Your task to perform on an android device: What's the news in Vietnam? Image 0: 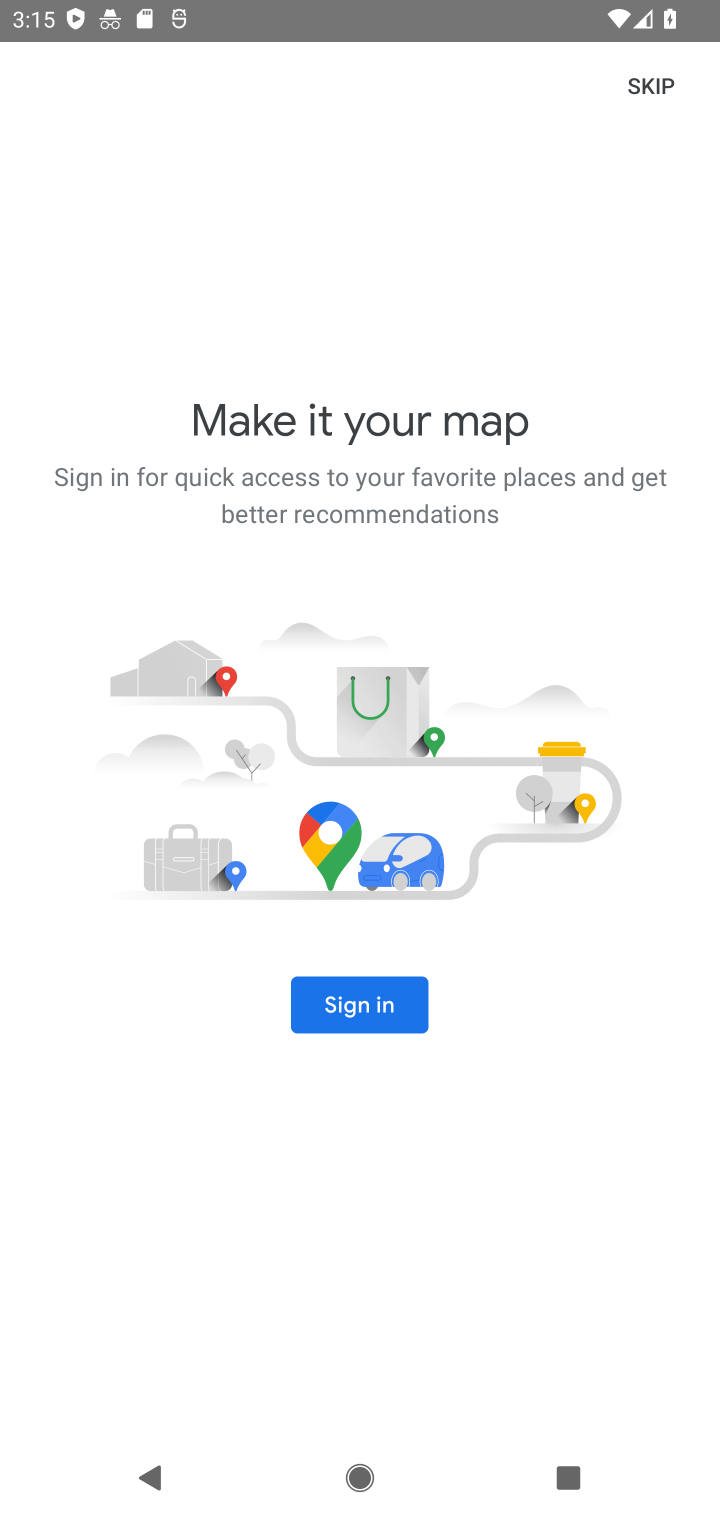
Step 0: press home button
Your task to perform on an android device: What's the news in Vietnam? Image 1: 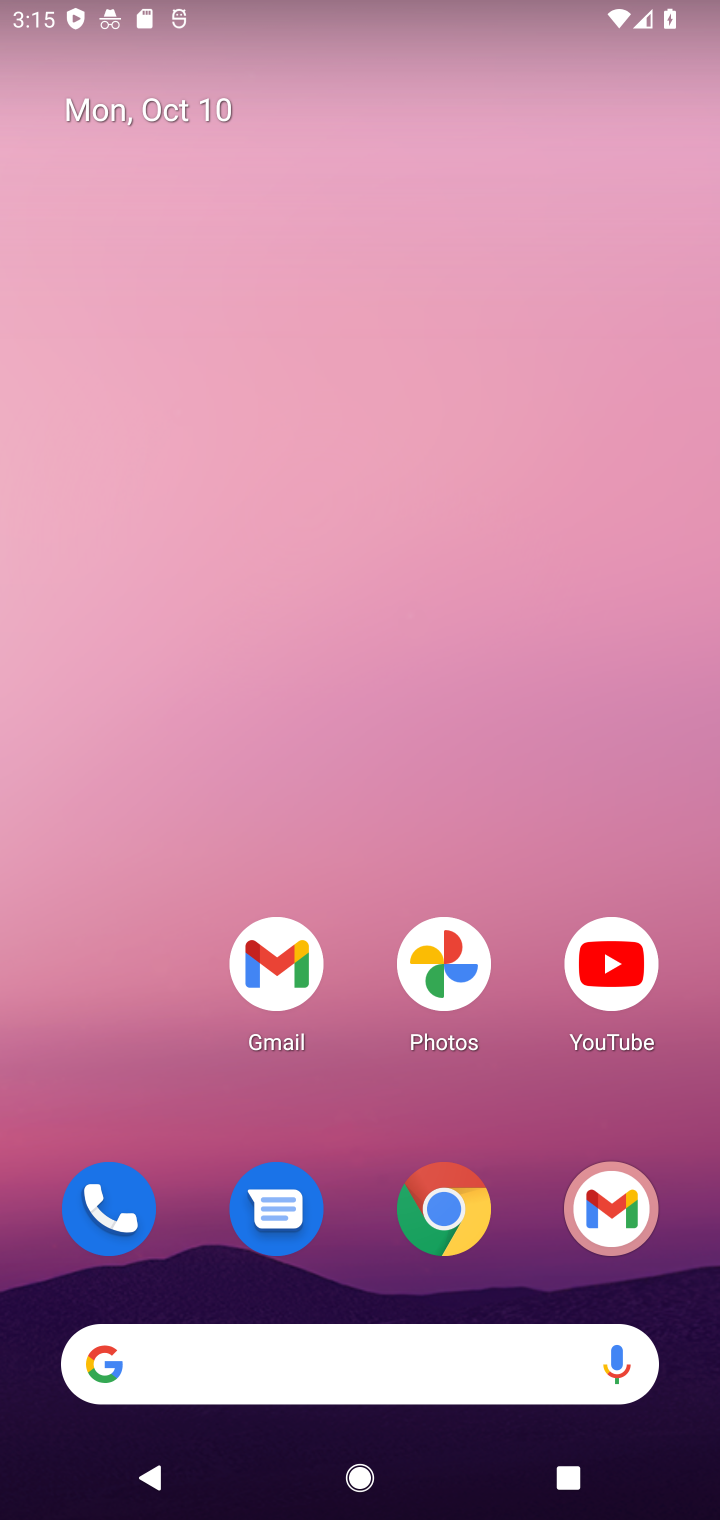
Step 1: click (458, 1239)
Your task to perform on an android device: What's the news in Vietnam? Image 2: 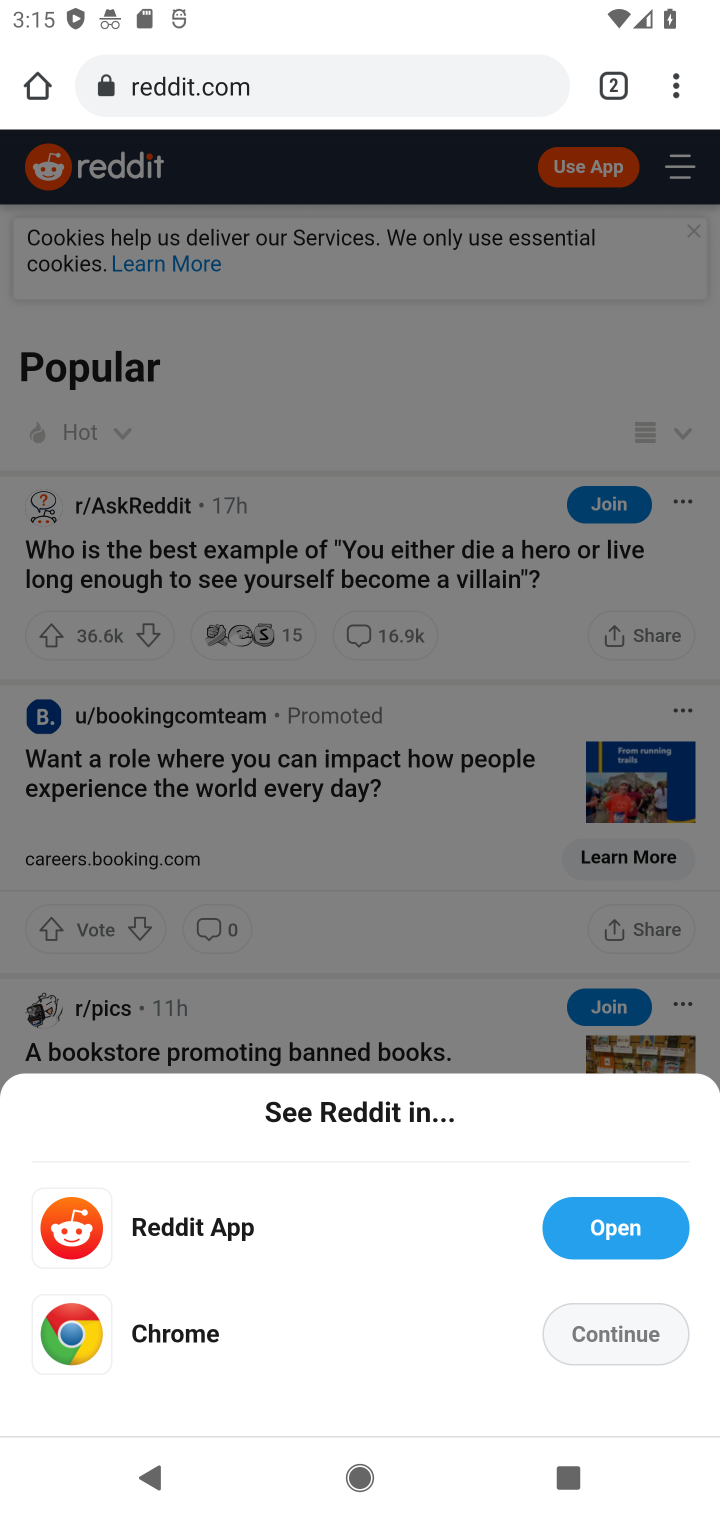
Step 2: click (292, 109)
Your task to perform on an android device: What's the news in Vietnam? Image 3: 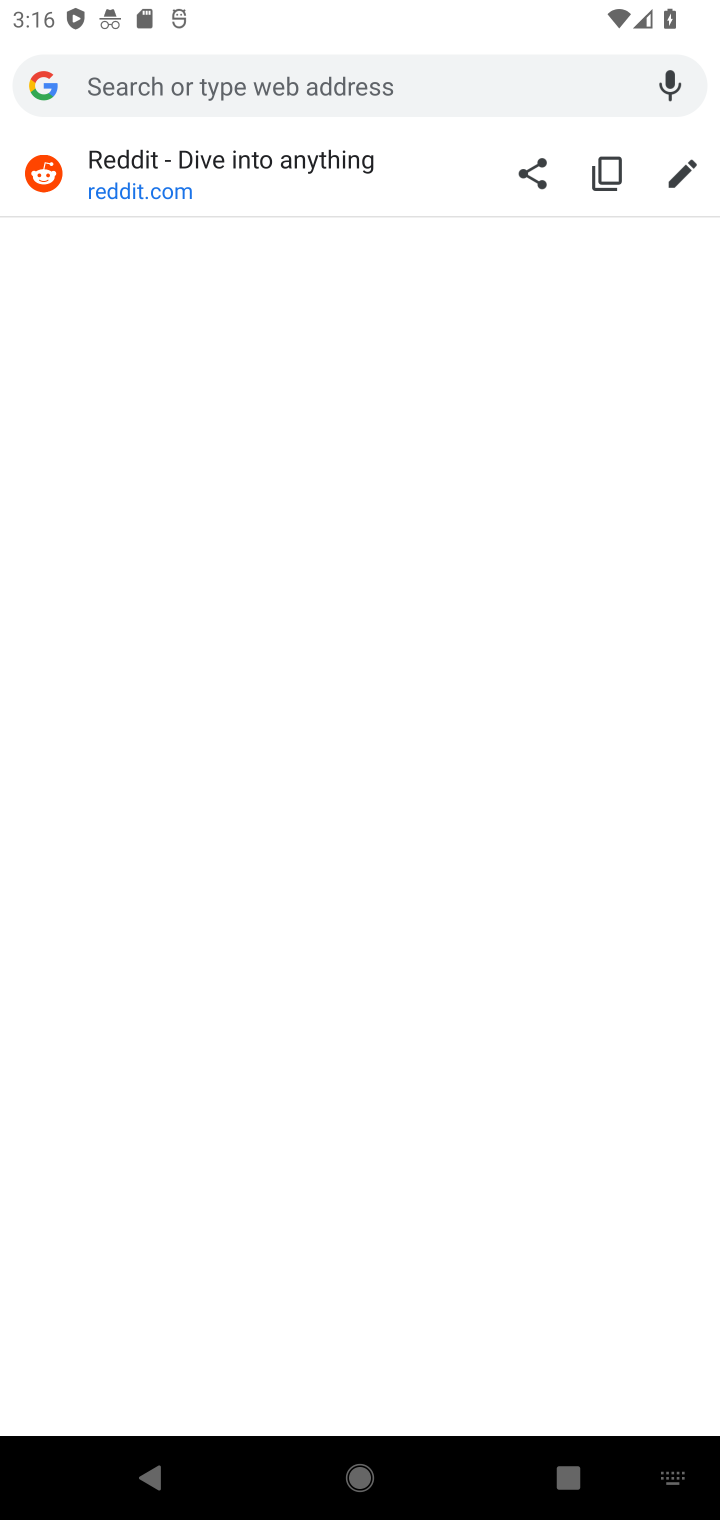
Step 3: type "news in vietnam"
Your task to perform on an android device: What's the news in Vietnam? Image 4: 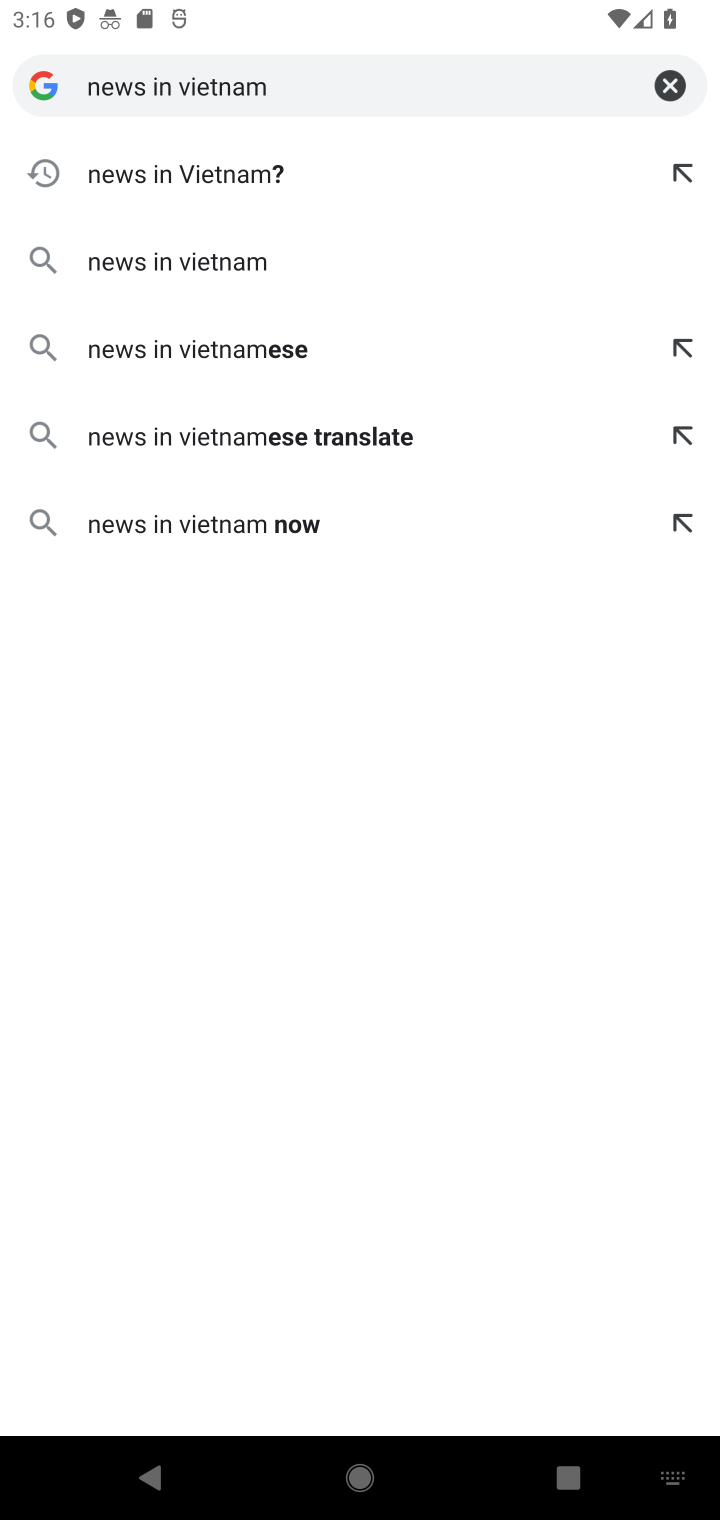
Step 4: click (284, 267)
Your task to perform on an android device: What's the news in Vietnam? Image 5: 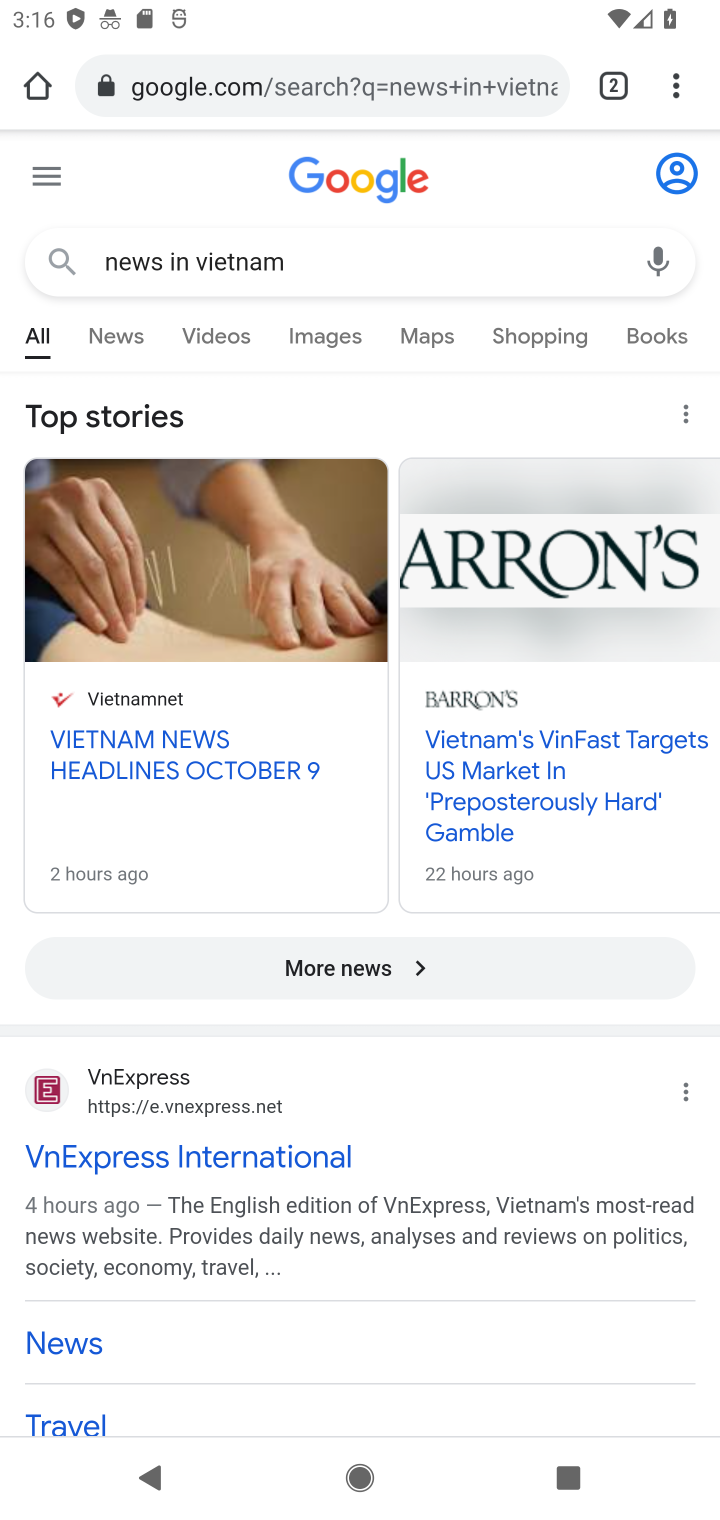
Step 5: click (119, 336)
Your task to perform on an android device: What's the news in Vietnam? Image 6: 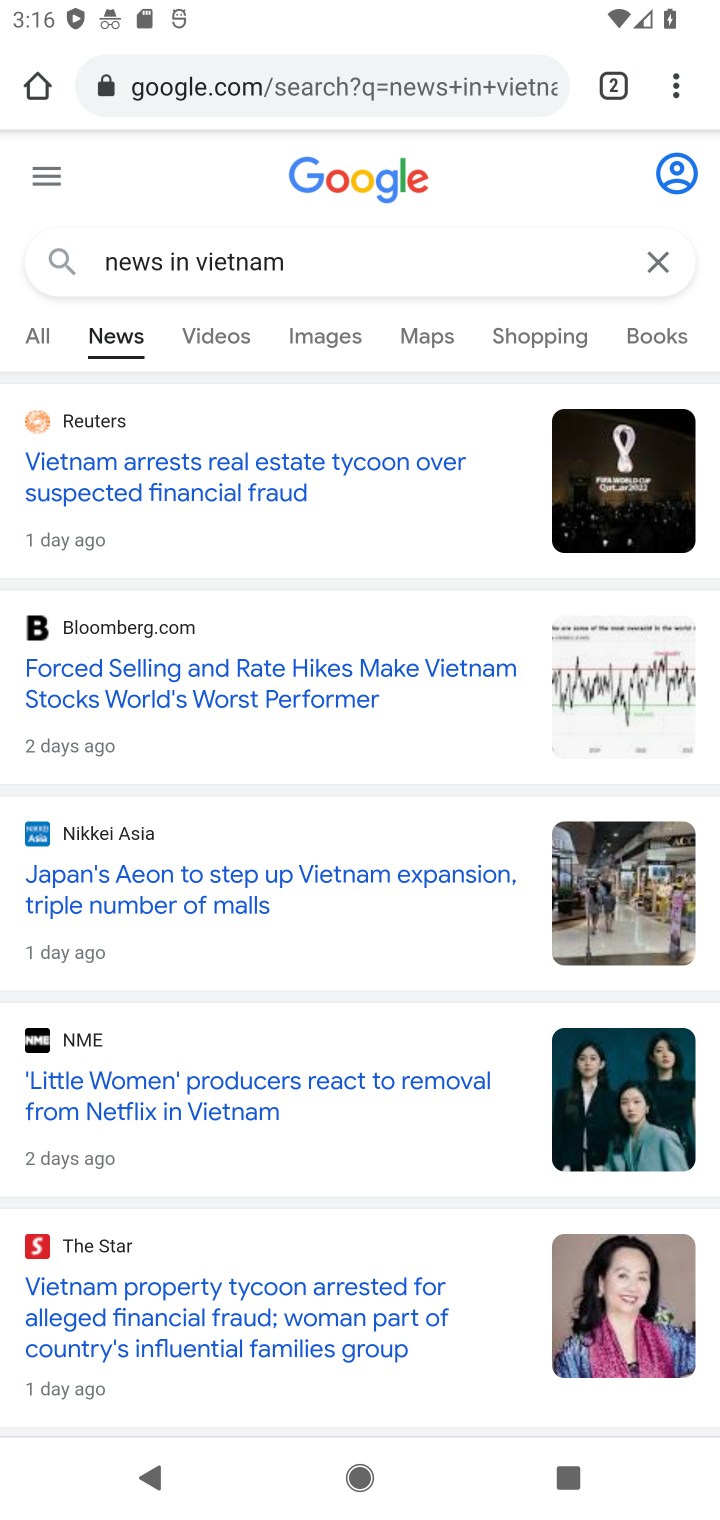
Step 6: task complete